Your task to perform on an android device: turn on the 12-hour format for clock Image 0: 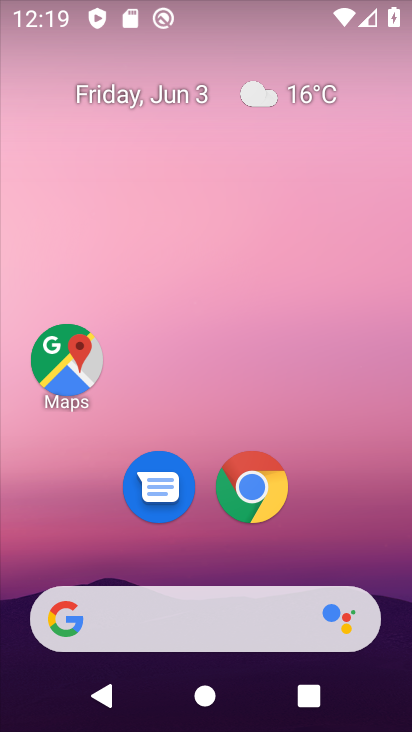
Step 0: drag from (235, 620) to (256, 42)
Your task to perform on an android device: turn on the 12-hour format for clock Image 1: 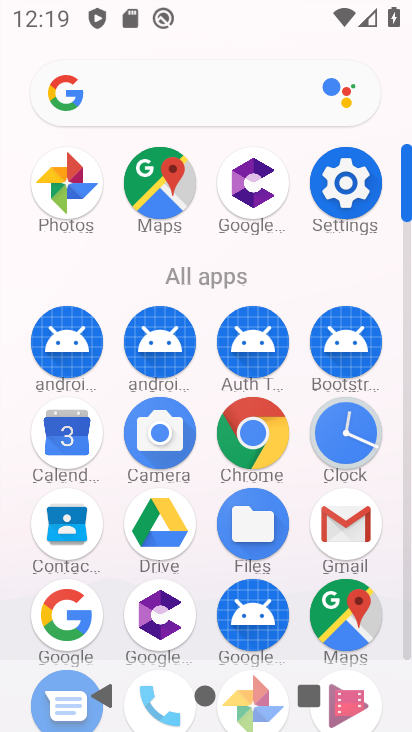
Step 1: click (343, 201)
Your task to perform on an android device: turn on the 12-hour format for clock Image 2: 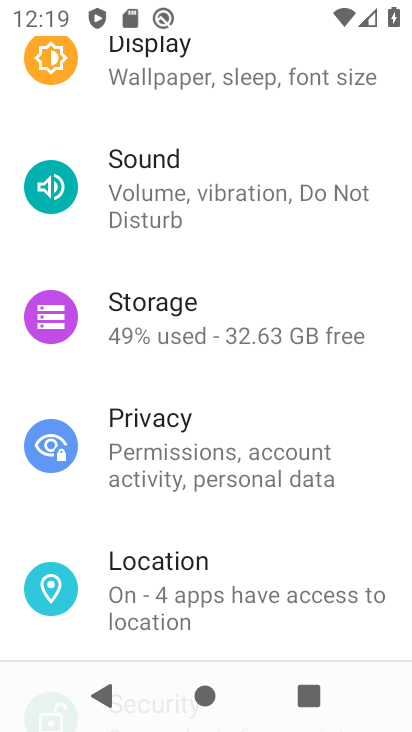
Step 2: drag from (151, 530) to (66, 6)
Your task to perform on an android device: turn on the 12-hour format for clock Image 3: 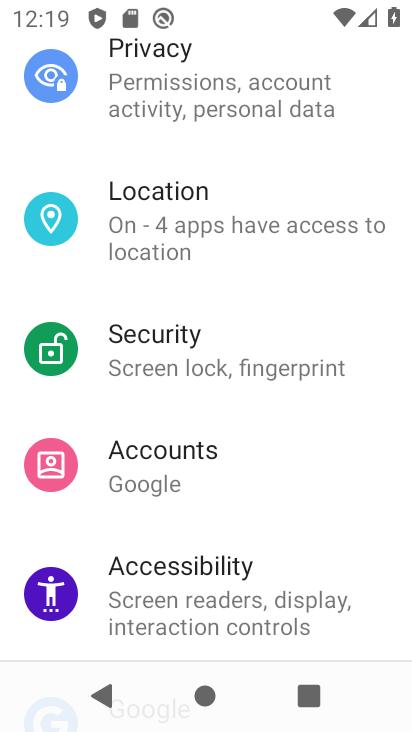
Step 3: drag from (157, 560) to (130, 21)
Your task to perform on an android device: turn on the 12-hour format for clock Image 4: 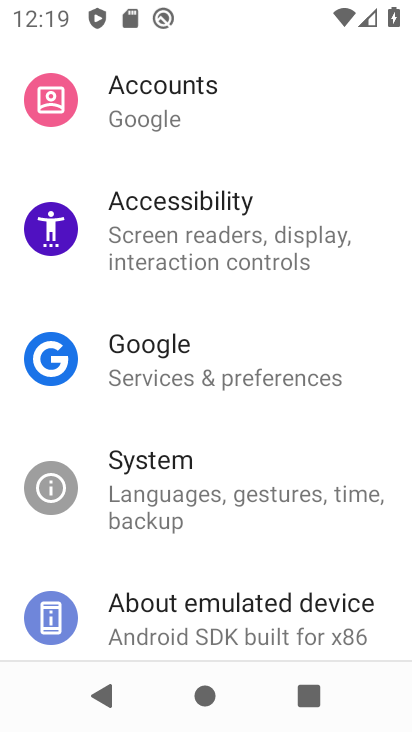
Step 4: click (148, 474)
Your task to perform on an android device: turn on the 12-hour format for clock Image 5: 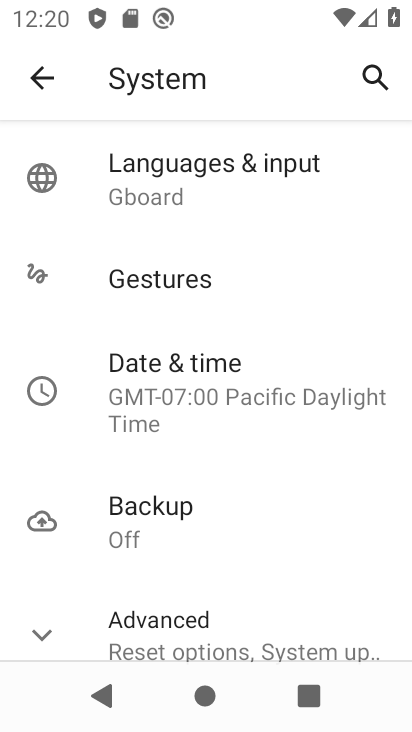
Step 5: drag from (209, 569) to (197, 123)
Your task to perform on an android device: turn on the 12-hour format for clock Image 6: 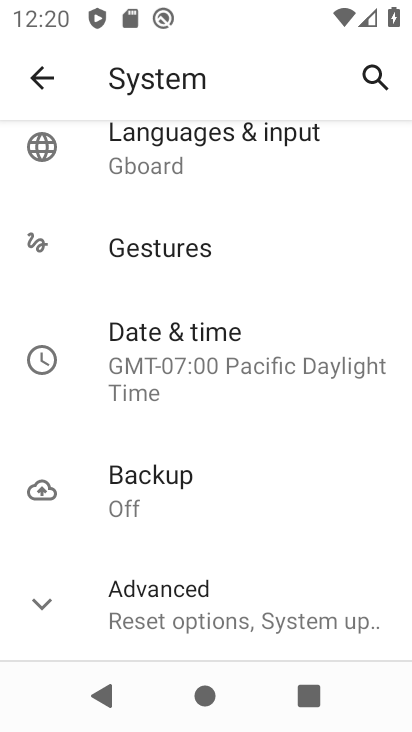
Step 6: click (155, 355)
Your task to perform on an android device: turn on the 12-hour format for clock Image 7: 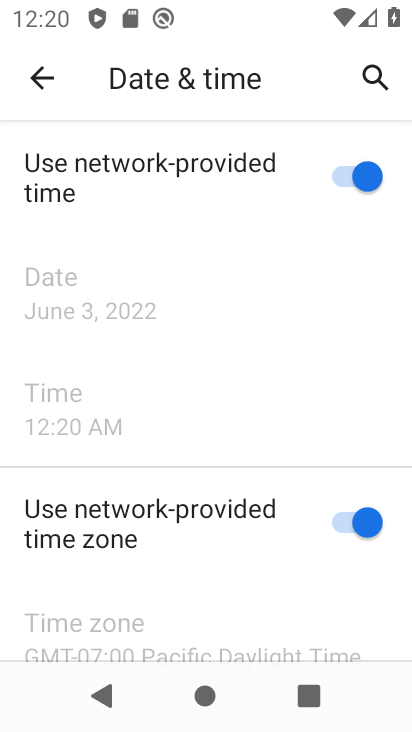
Step 7: task complete